Your task to perform on an android device: Open the stopwatch Image 0: 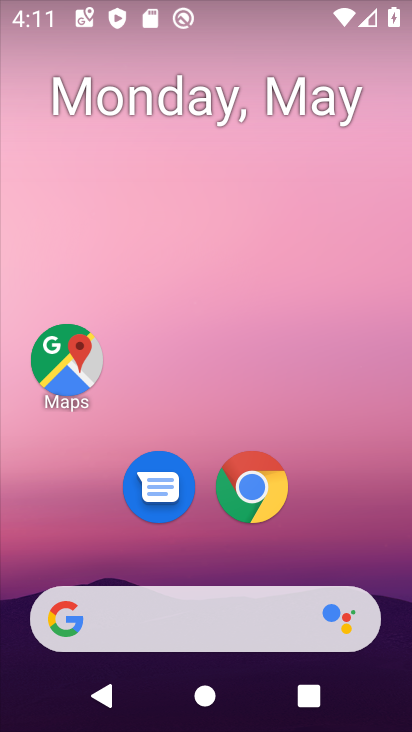
Step 0: drag from (154, 728) to (126, 59)
Your task to perform on an android device: Open the stopwatch Image 1: 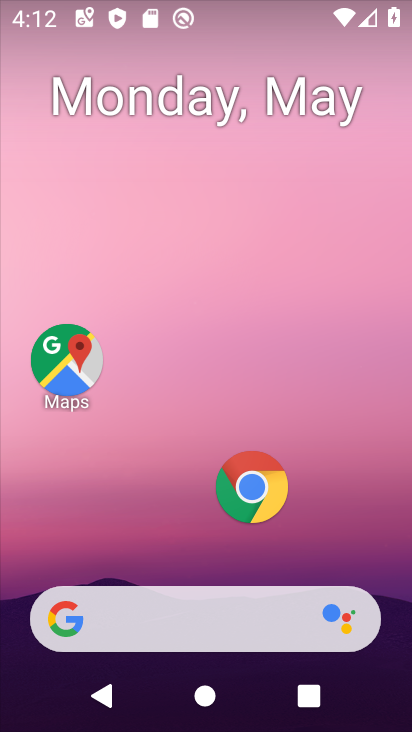
Step 1: press home button
Your task to perform on an android device: Open the stopwatch Image 2: 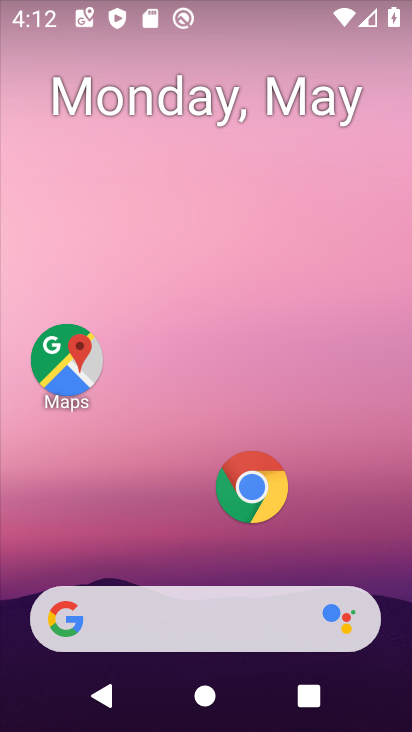
Step 2: drag from (163, 725) to (163, 21)
Your task to perform on an android device: Open the stopwatch Image 3: 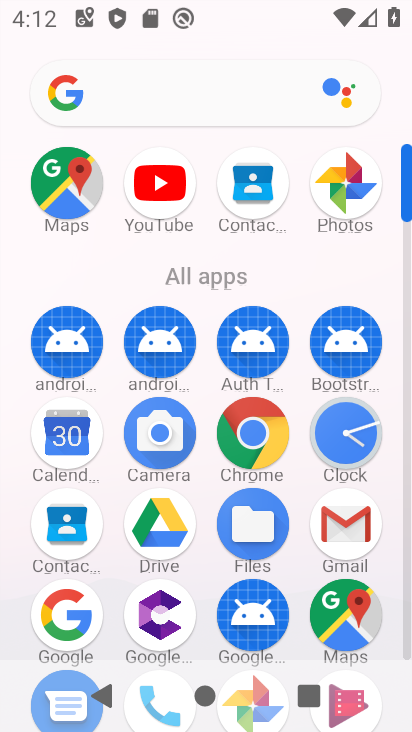
Step 3: click (338, 449)
Your task to perform on an android device: Open the stopwatch Image 4: 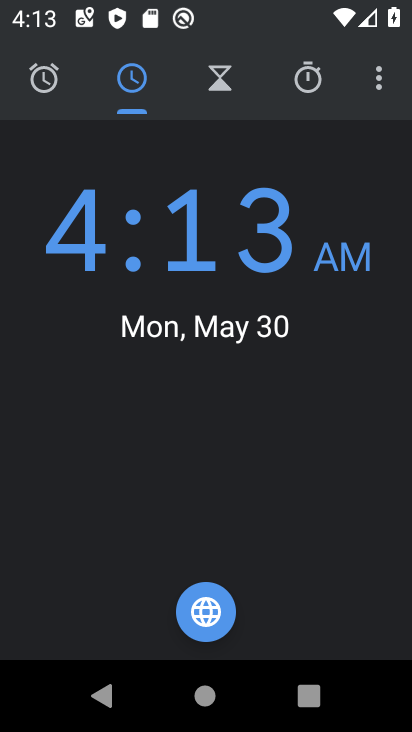
Step 4: click (283, 81)
Your task to perform on an android device: Open the stopwatch Image 5: 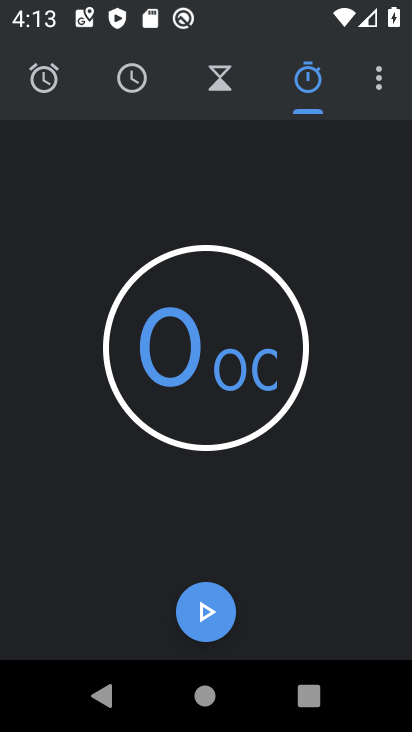
Step 5: task complete